Your task to perform on an android device: Search for sushi restaurants on Maps Image 0: 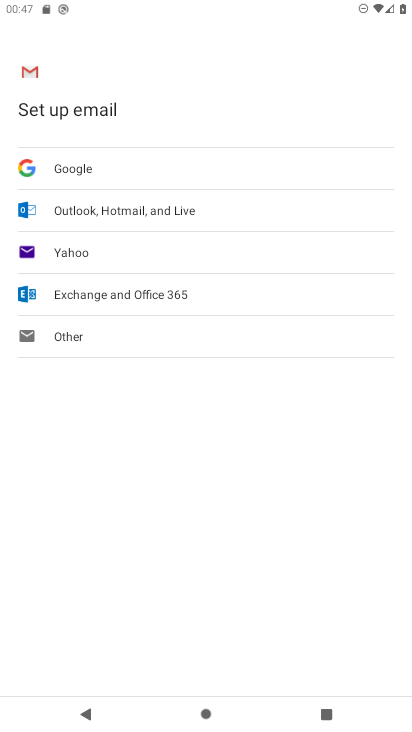
Step 0: press home button
Your task to perform on an android device: Search for sushi restaurants on Maps Image 1: 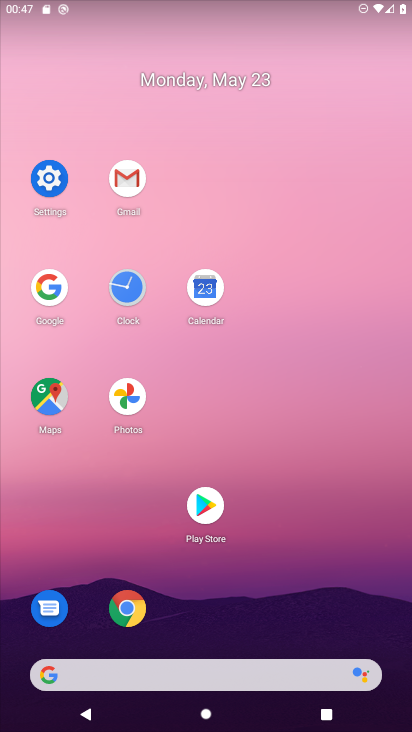
Step 1: click (40, 401)
Your task to perform on an android device: Search for sushi restaurants on Maps Image 2: 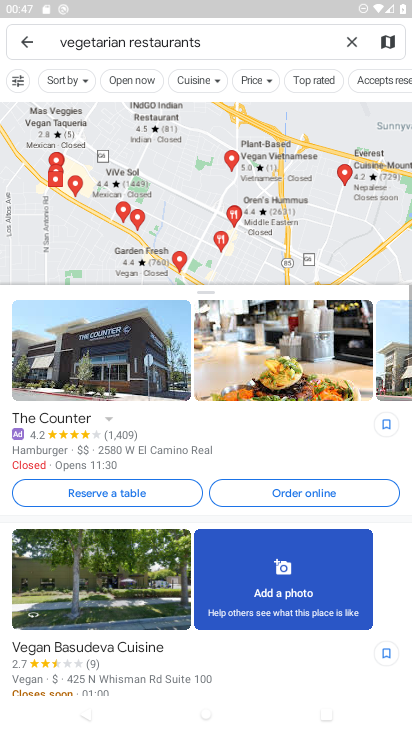
Step 2: click (359, 41)
Your task to perform on an android device: Search for sushi restaurants on Maps Image 3: 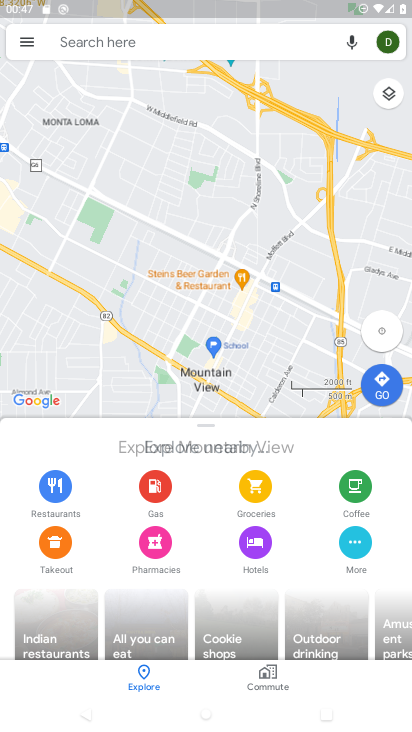
Step 3: click (244, 46)
Your task to perform on an android device: Search for sushi restaurants on Maps Image 4: 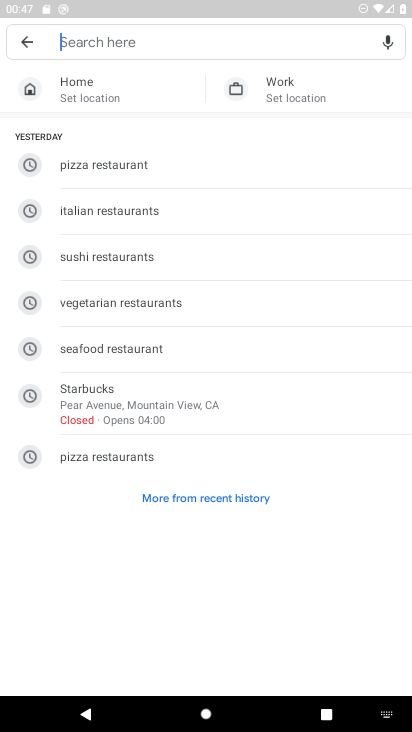
Step 4: click (174, 268)
Your task to perform on an android device: Search for sushi restaurants on Maps Image 5: 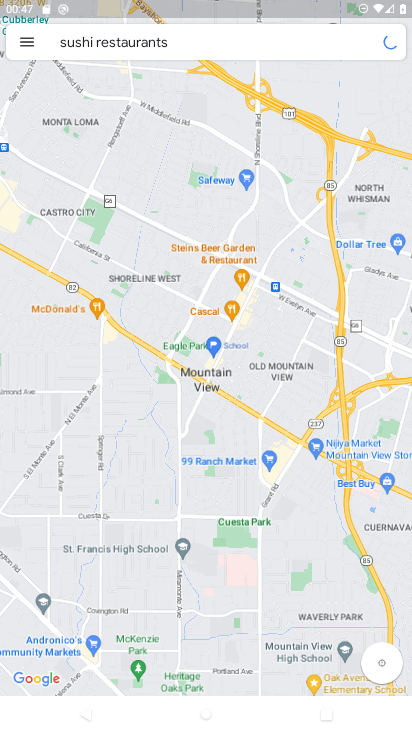
Step 5: task complete